Your task to perform on an android device: Check the news Image 0: 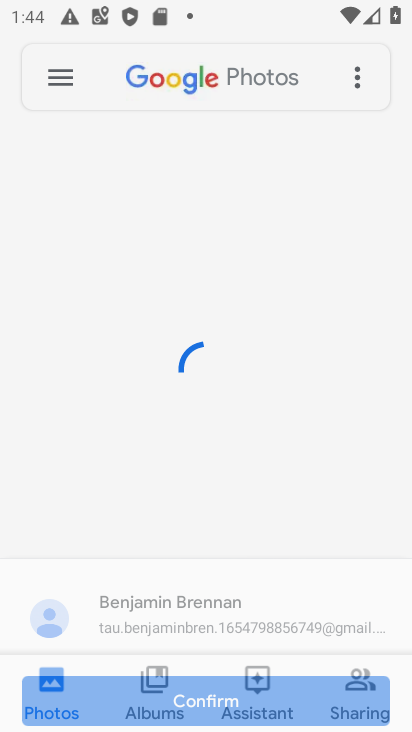
Step 0: press home button
Your task to perform on an android device: Check the news Image 1: 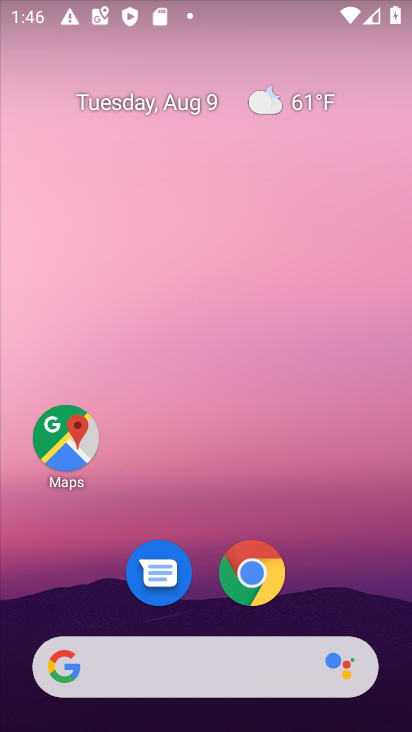
Step 1: click (186, 665)
Your task to perform on an android device: Check the news Image 2: 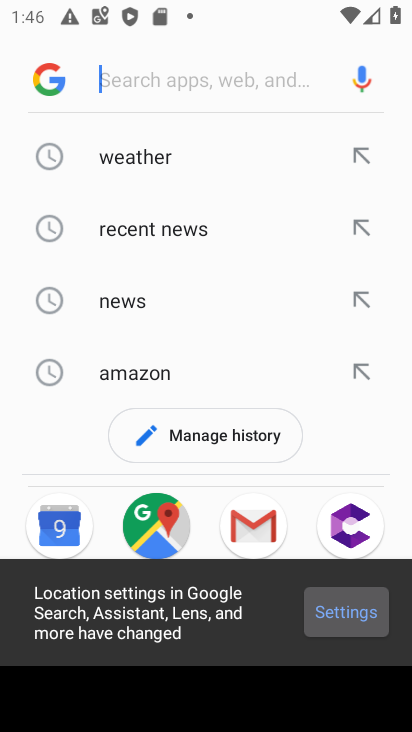
Step 2: click (104, 305)
Your task to perform on an android device: Check the news Image 3: 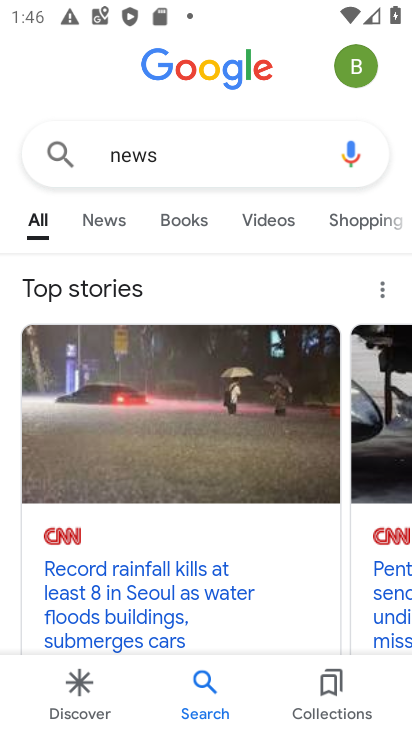
Step 3: task complete